Your task to perform on an android device: Go to calendar. Show me events next week Image 0: 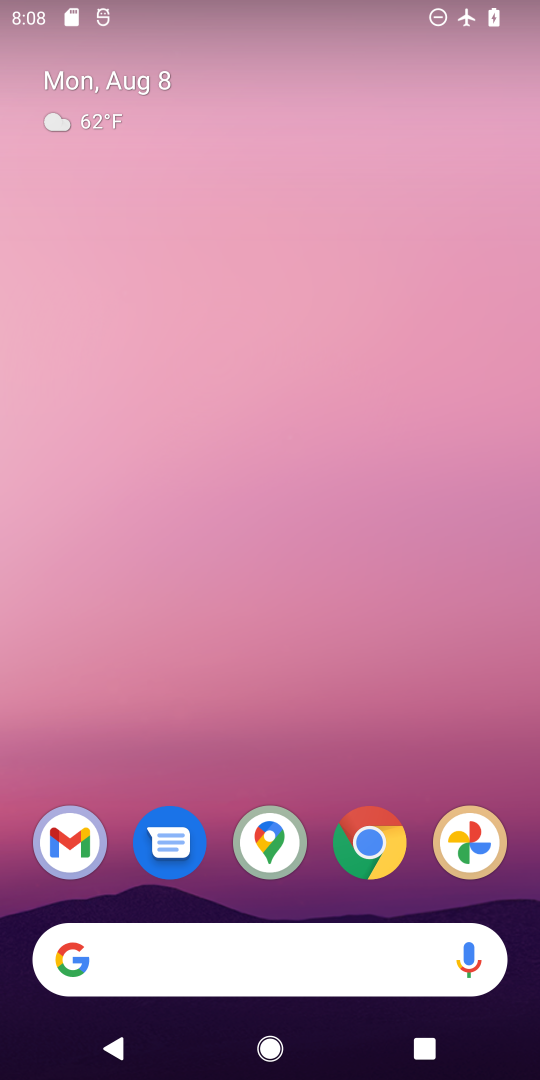
Step 0: drag from (269, 907) to (208, 156)
Your task to perform on an android device: Go to calendar. Show me events next week Image 1: 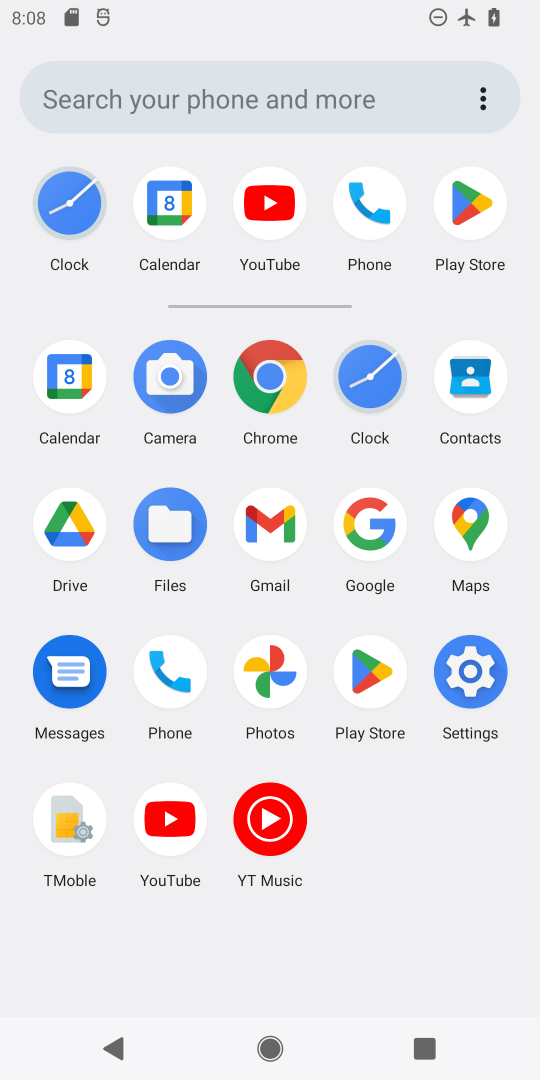
Step 1: click (61, 379)
Your task to perform on an android device: Go to calendar. Show me events next week Image 2: 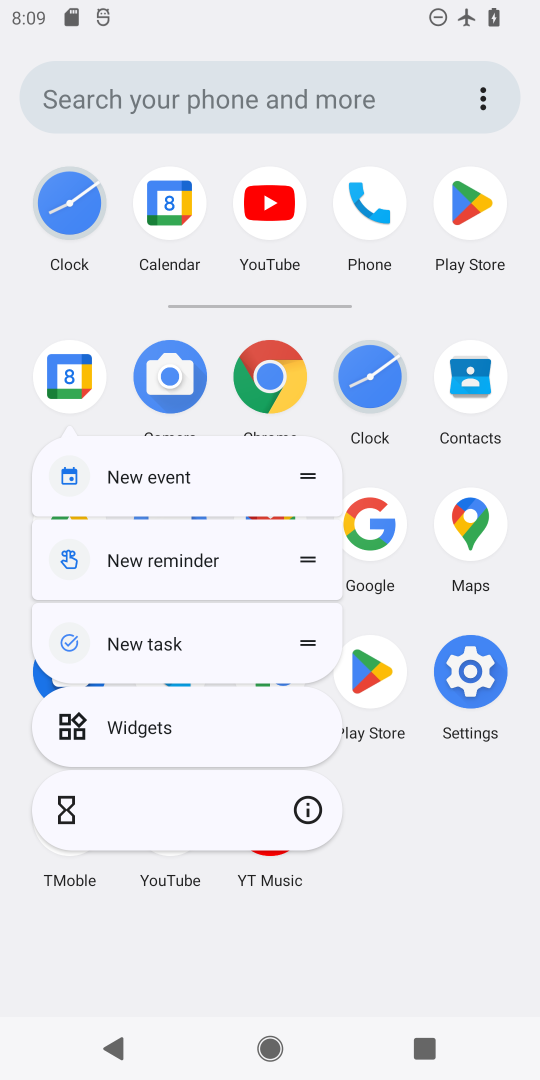
Step 2: click (421, 890)
Your task to perform on an android device: Go to calendar. Show me events next week Image 3: 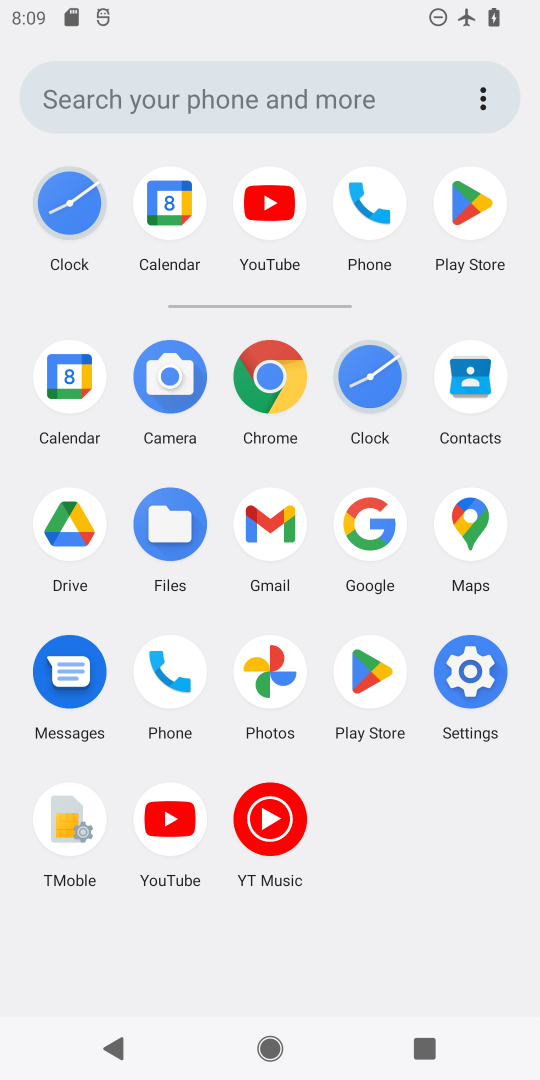
Step 3: click (45, 393)
Your task to perform on an android device: Go to calendar. Show me events next week Image 4: 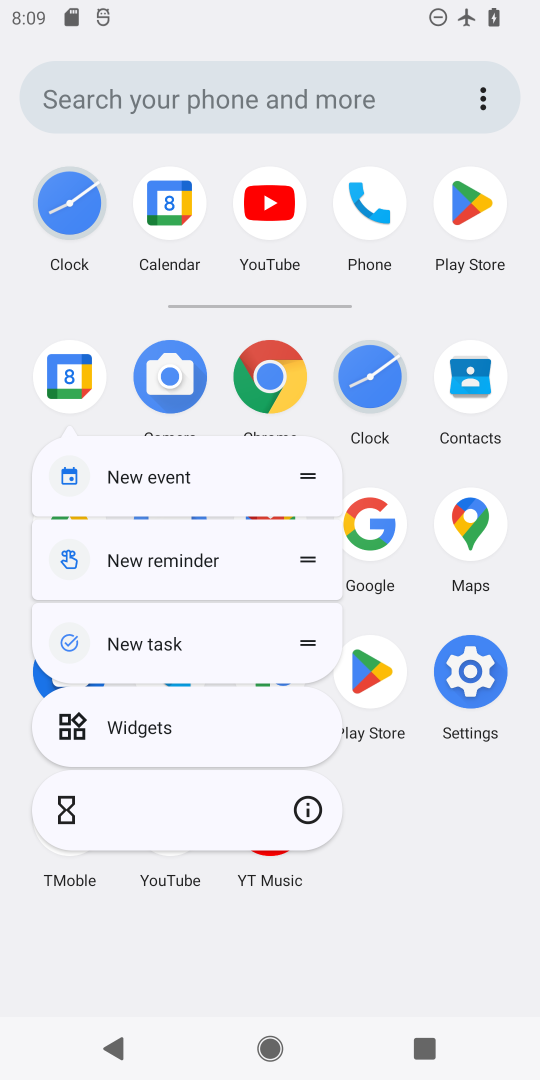
Step 4: click (330, 956)
Your task to perform on an android device: Go to calendar. Show me events next week Image 5: 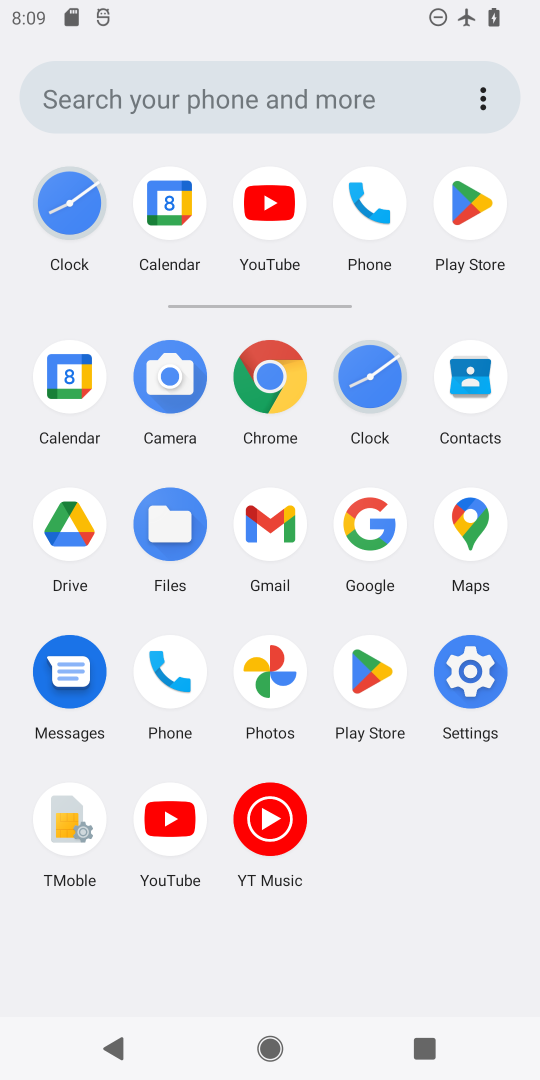
Step 5: click (63, 378)
Your task to perform on an android device: Go to calendar. Show me events next week Image 6: 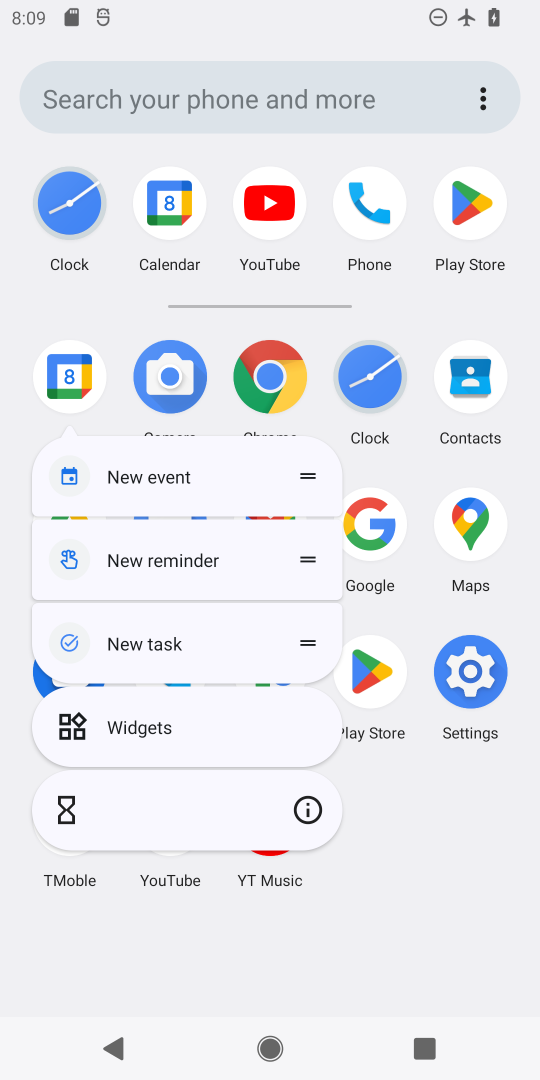
Step 6: click (63, 378)
Your task to perform on an android device: Go to calendar. Show me events next week Image 7: 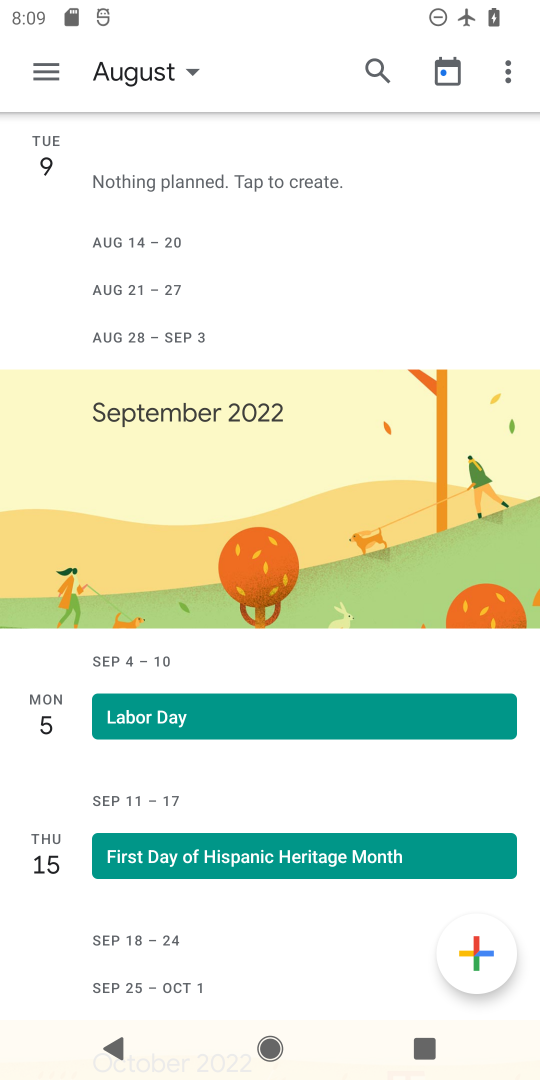
Step 7: click (38, 71)
Your task to perform on an android device: Go to calendar. Show me events next week Image 8: 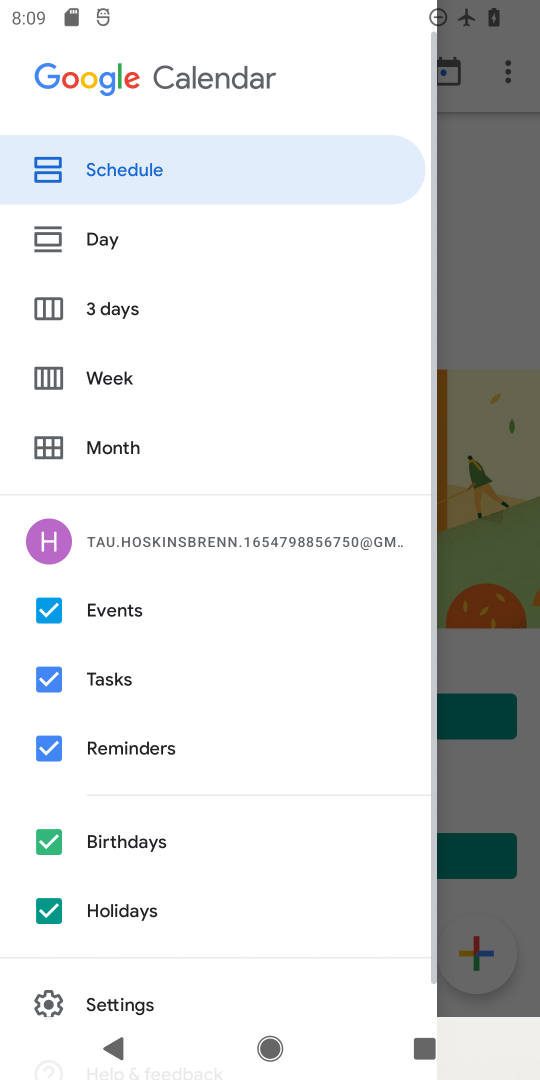
Step 8: click (116, 365)
Your task to perform on an android device: Go to calendar. Show me events next week Image 9: 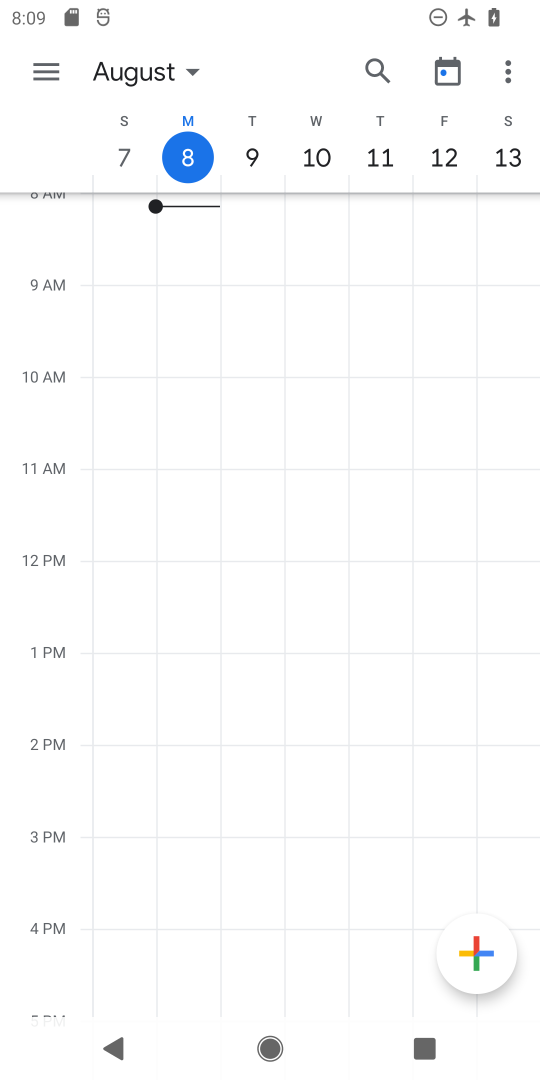
Step 9: task complete